Your task to perform on an android device: When is my next appointment? Image 0: 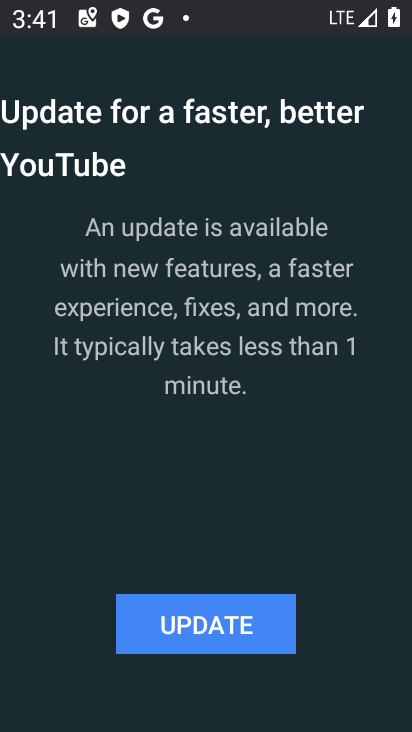
Step 0: press home button
Your task to perform on an android device: When is my next appointment? Image 1: 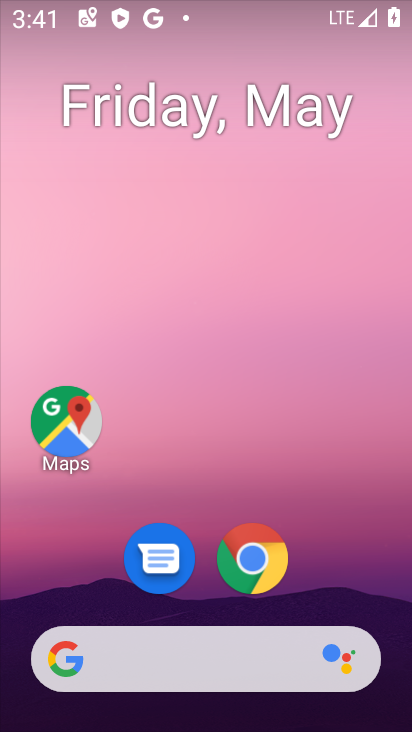
Step 1: drag from (172, 657) to (239, 170)
Your task to perform on an android device: When is my next appointment? Image 2: 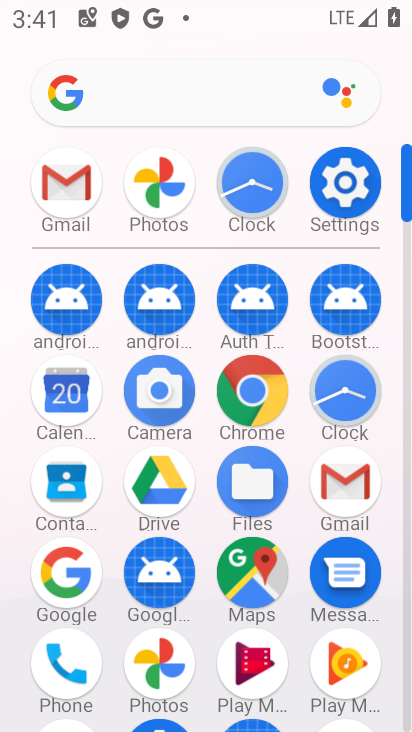
Step 2: click (76, 402)
Your task to perform on an android device: When is my next appointment? Image 3: 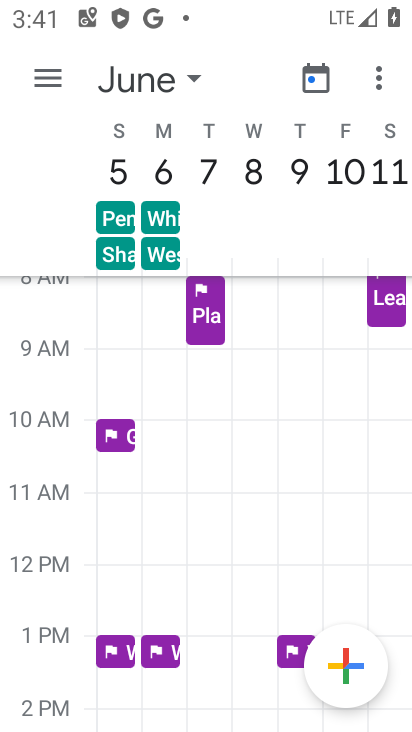
Step 3: click (133, 87)
Your task to perform on an android device: When is my next appointment? Image 4: 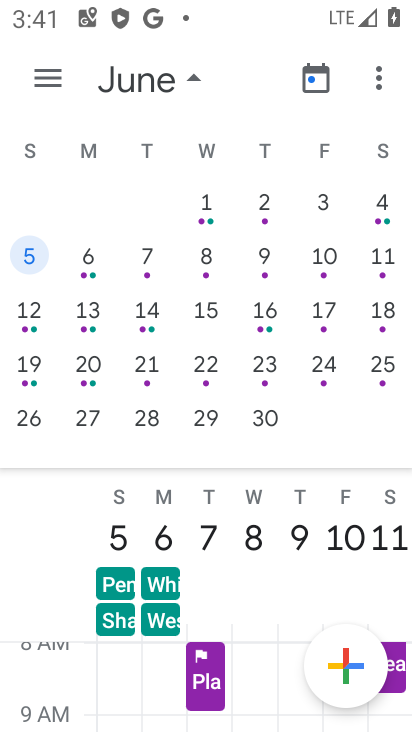
Step 4: drag from (128, 342) to (410, 350)
Your task to perform on an android device: When is my next appointment? Image 5: 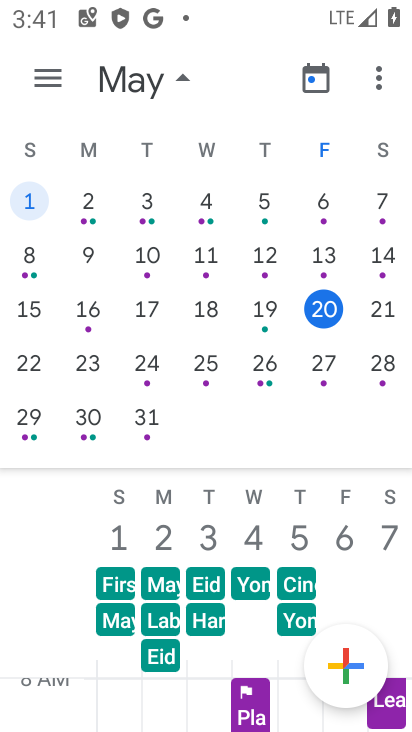
Step 5: click (332, 305)
Your task to perform on an android device: When is my next appointment? Image 6: 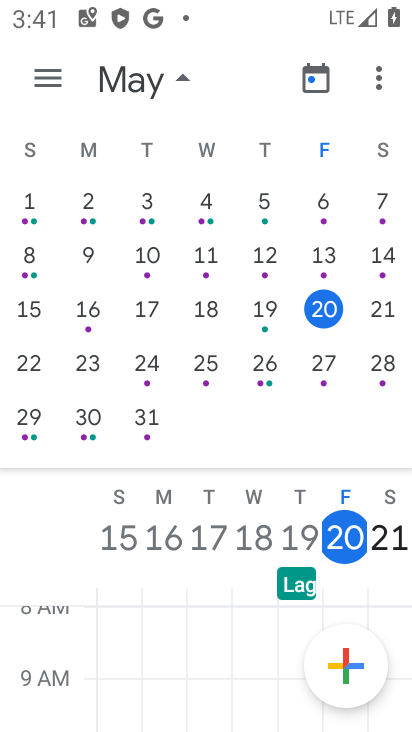
Step 6: click (55, 72)
Your task to perform on an android device: When is my next appointment? Image 7: 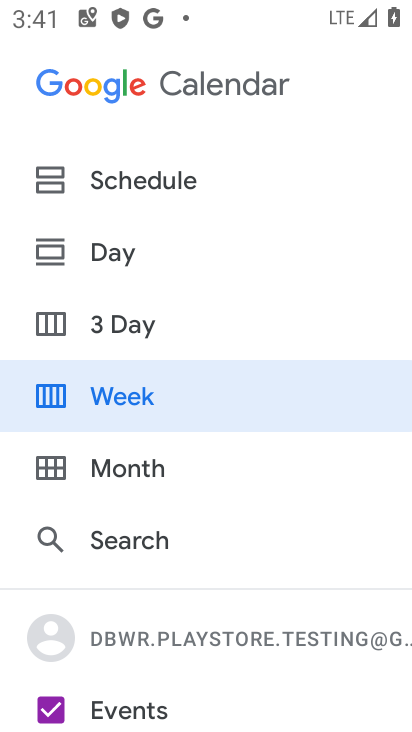
Step 7: click (149, 187)
Your task to perform on an android device: When is my next appointment? Image 8: 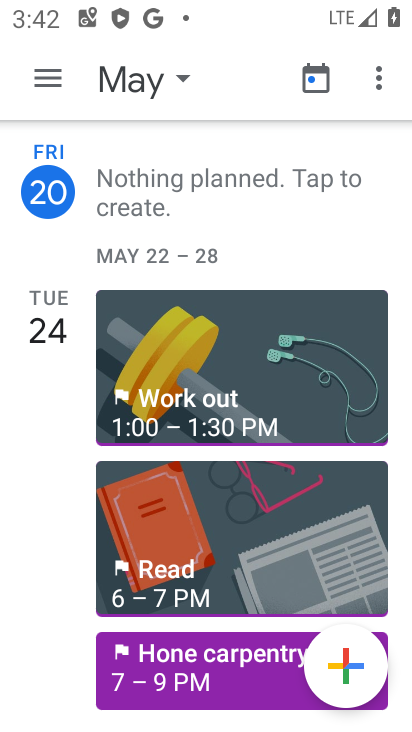
Step 8: task complete